Your task to perform on an android device: Go to Wikipedia Image 0: 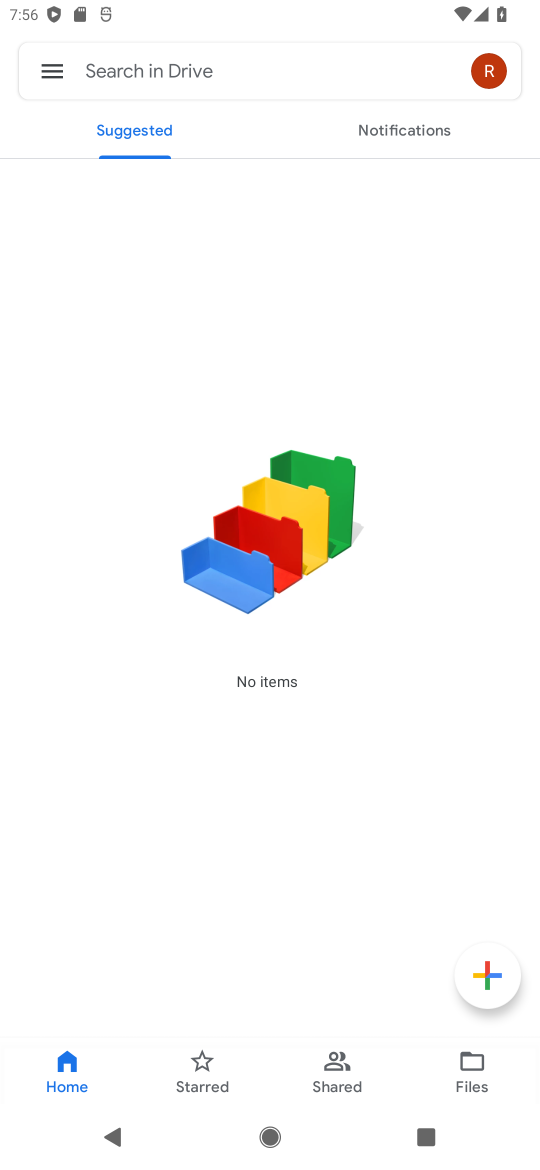
Step 0: press home button
Your task to perform on an android device: Go to Wikipedia Image 1: 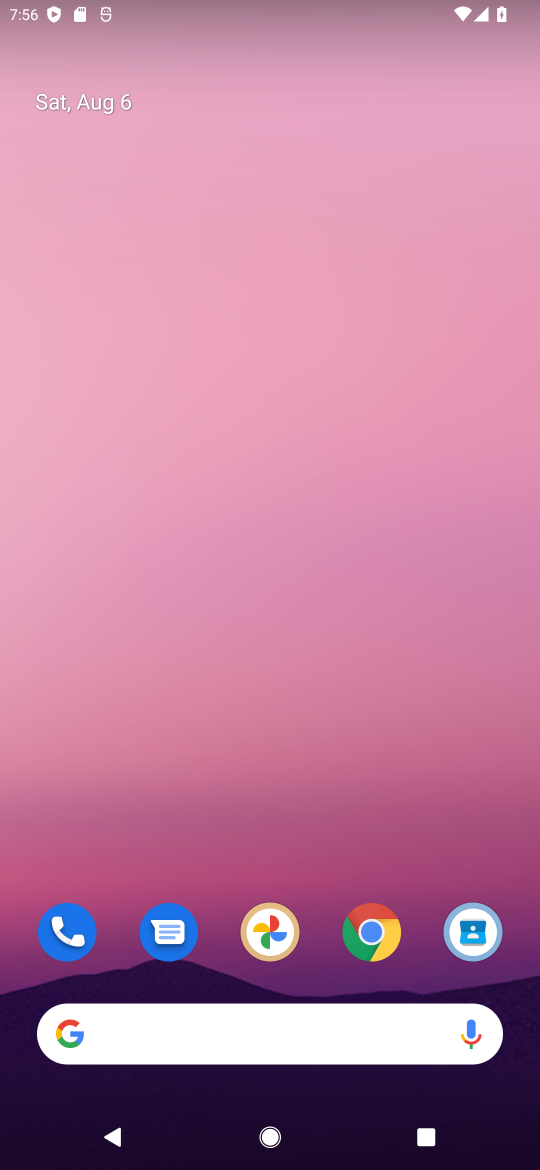
Step 1: click (384, 924)
Your task to perform on an android device: Go to Wikipedia Image 2: 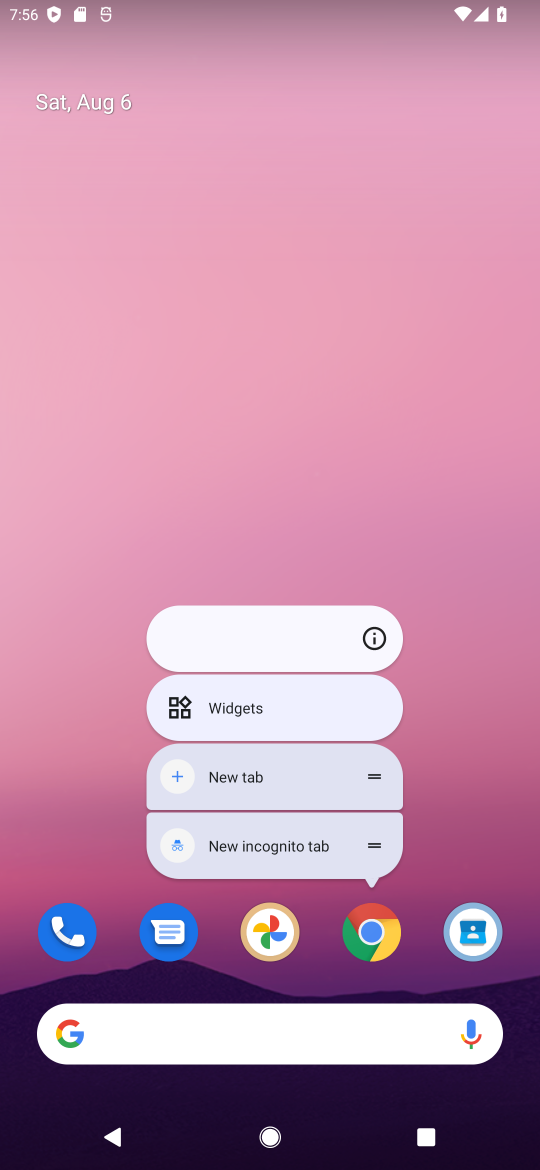
Step 2: click (366, 921)
Your task to perform on an android device: Go to Wikipedia Image 3: 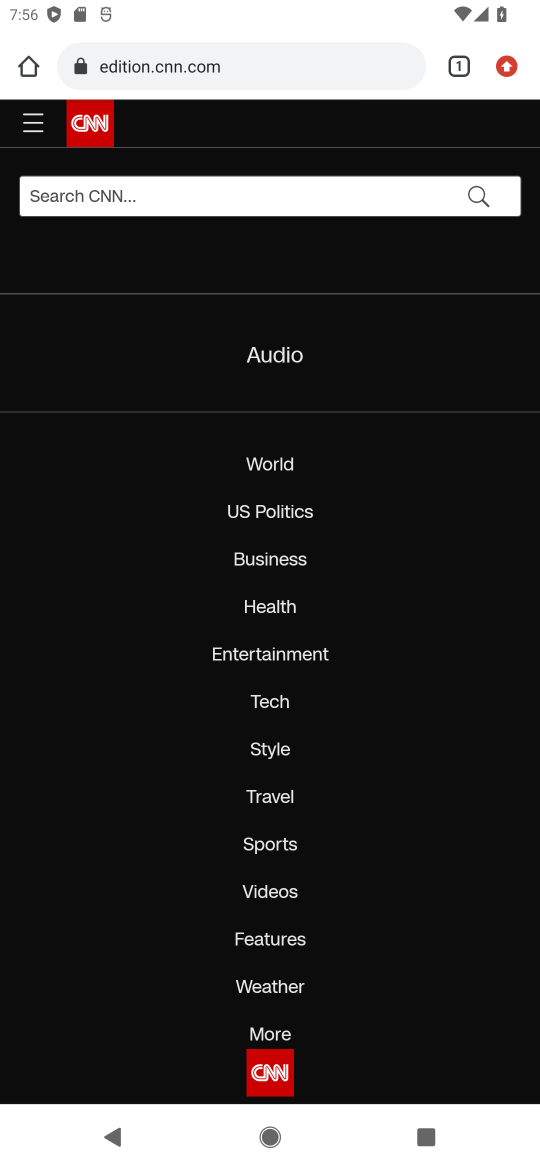
Step 3: drag from (507, 74) to (381, 200)
Your task to perform on an android device: Go to Wikipedia Image 4: 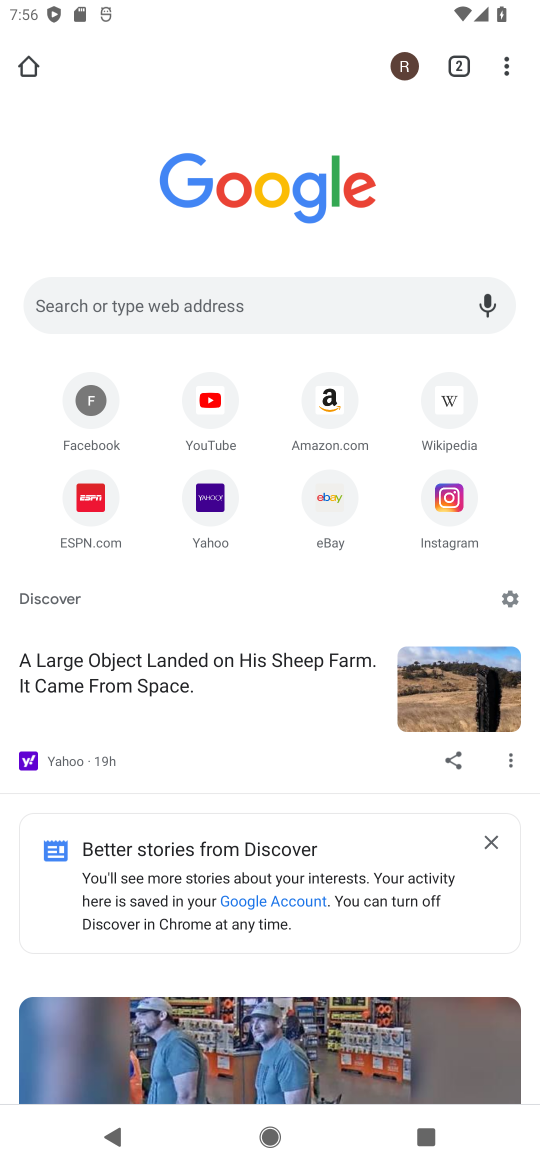
Step 4: click (457, 403)
Your task to perform on an android device: Go to Wikipedia Image 5: 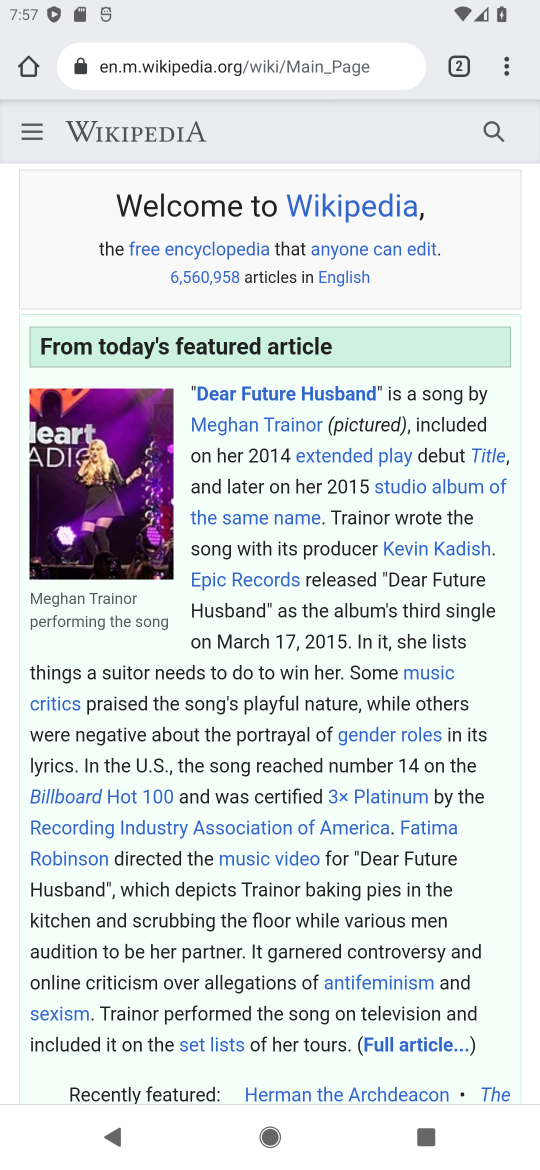
Step 5: task complete